Your task to perform on an android device: What time is it? Image 0: 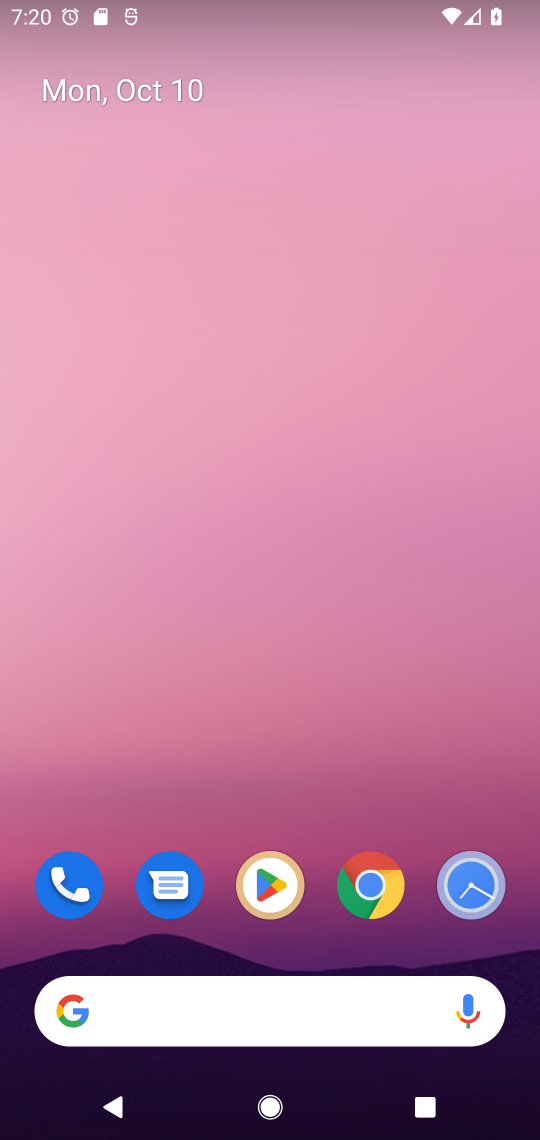
Step 0: drag from (219, 725) to (275, 35)
Your task to perform on an android device: What time is it? Image 1: 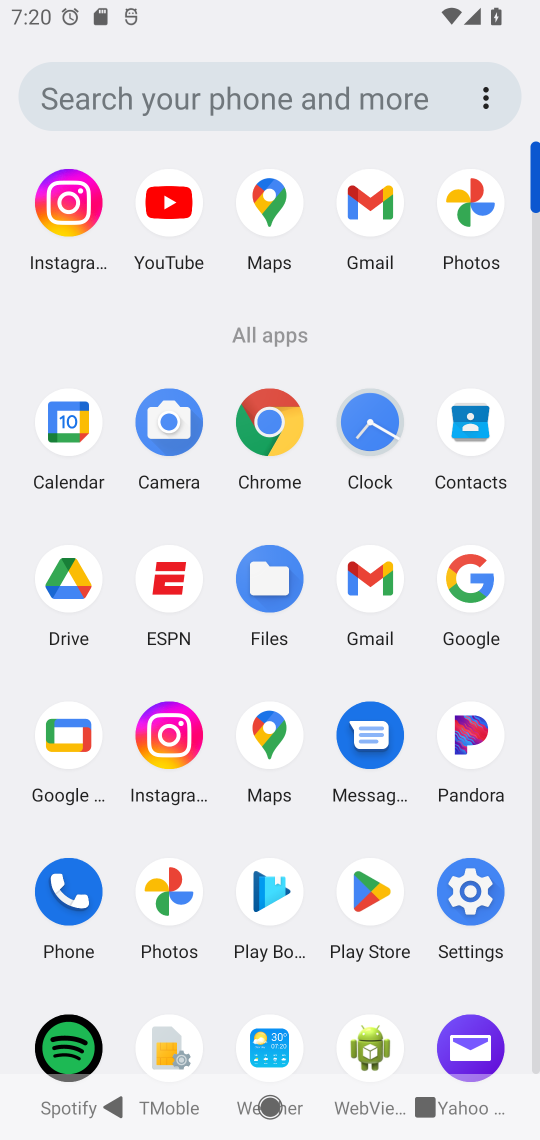
Step 1: click (369, 448)
Your task to perform on an android device: What time is it? Image 2: 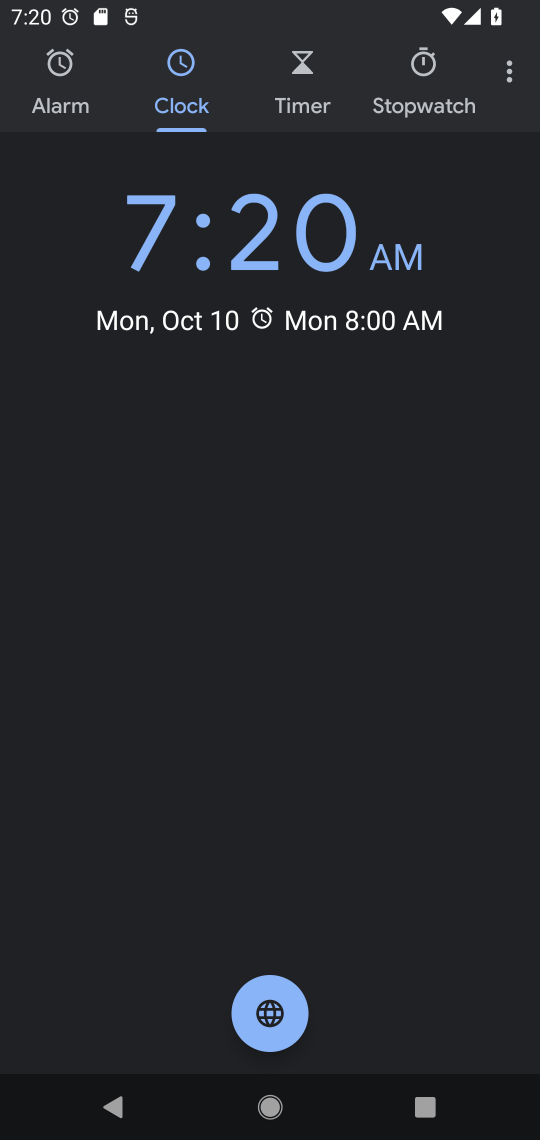
Step 2: task complete